Your task to perform on an android device: turn off smart reply in the gmail app Image 0: 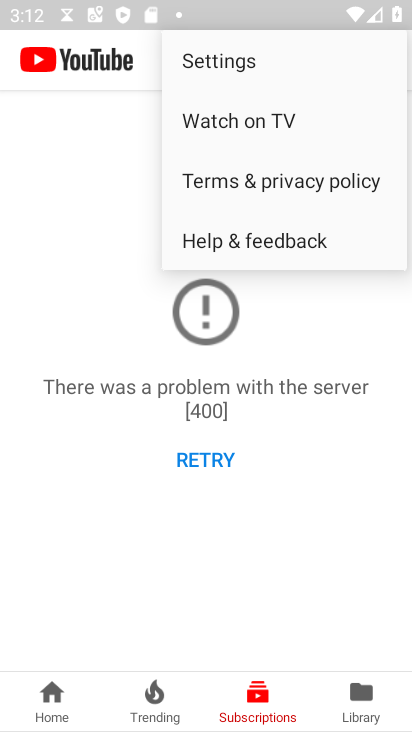
Step 0: press home button
Your task to perform on an android device: turn off smart reply in the gmail app Image 1: 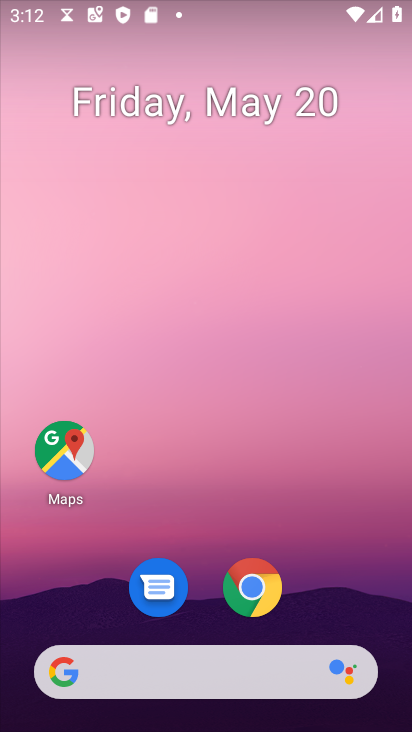
Step 1: drag from (360, 622) to (245, 166)
Your task to perform on an android device: turn off smart reply in the gmail app Image 2: 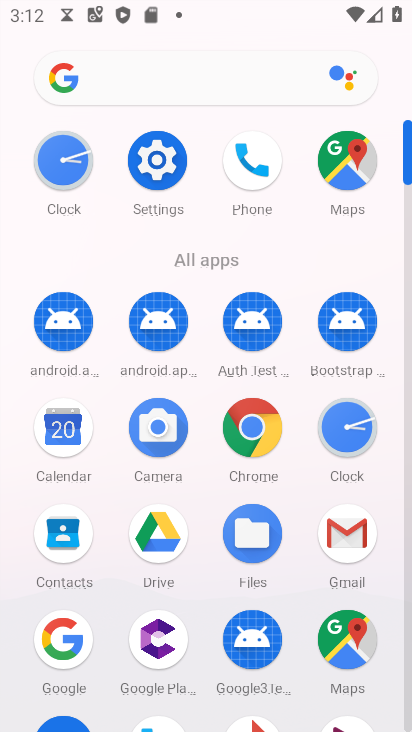
Step 2: click (336, 518)
Your task to perform on an android device: turn off smart reply in the gmail app Image 3: 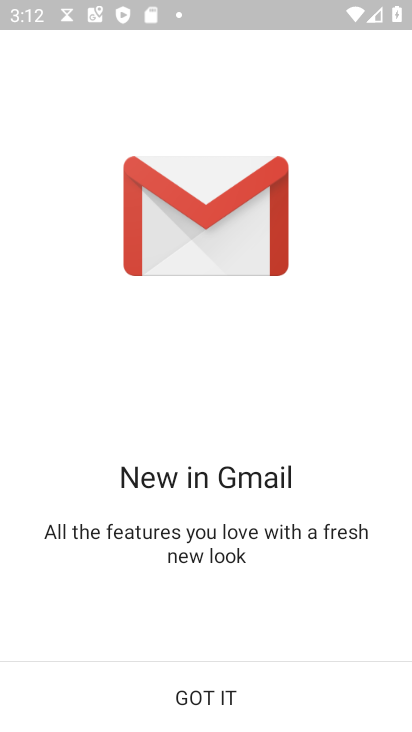
Step 3: click (285, 695)
Your task to perform on an android device: turn off smart reply in the gmail app Image 4: 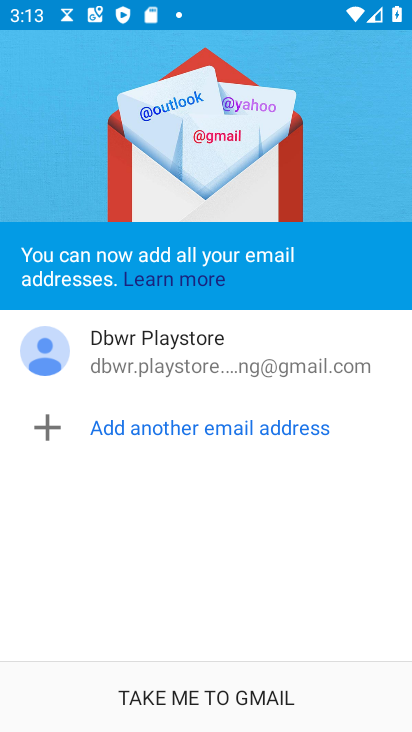
Step 4: click (285, 698)
Your task to perform on an android device: turn off smart reply in the gmail app Image 5: 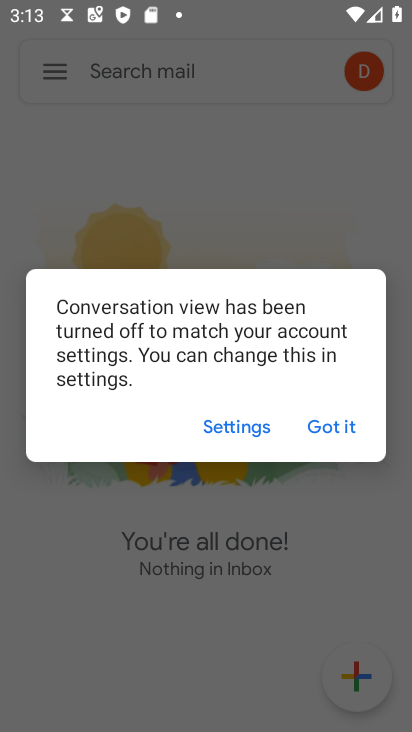
Step 5: click (322, 436)
Your task to perform on an android device: turn off smart reply in the gmail app Image 6: 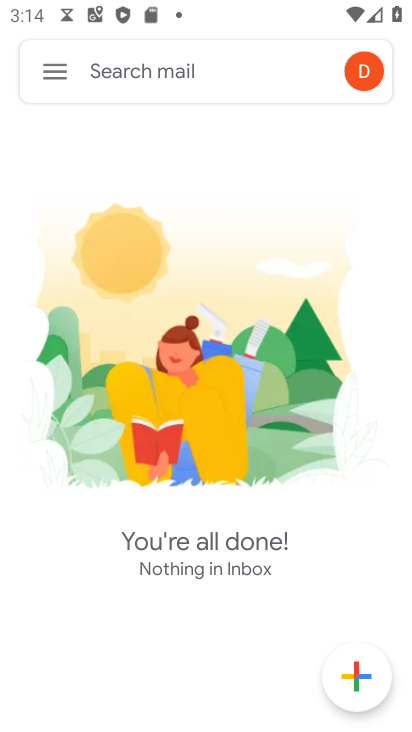
Step 6: click (69, 77)
Your task to perform on an android device: turn off smart reply in the gmail app Image 7: 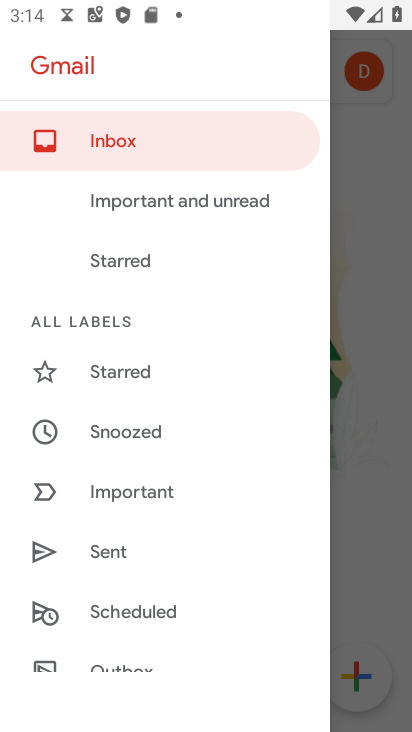
Step 7: drag from (153, 662) to (54, 188)
Your task to perform on an android device: turn off smart reply in the gmail app Image 8: 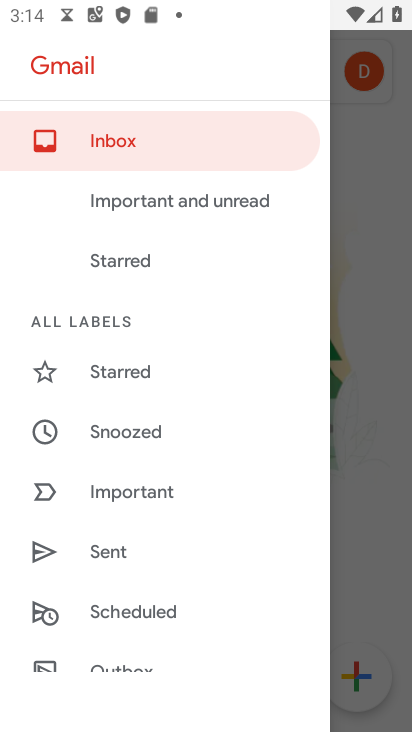
Step 8: drag from (144, 667) to (59, 183)
Your task to perform on an android device: turn off smart reply in the gmail app Image 9: 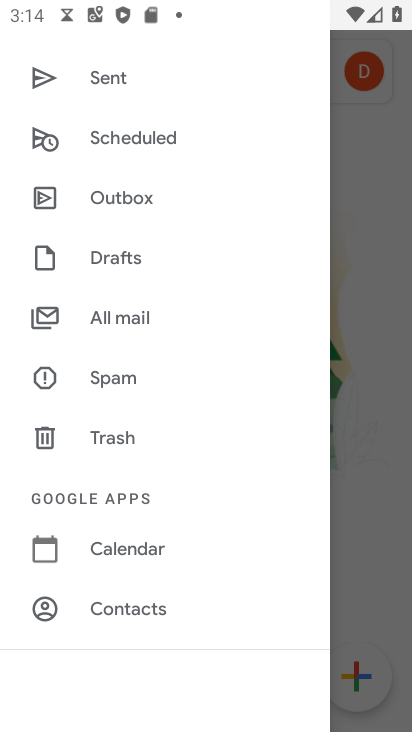
Step 9: drag from (148, 601) to (59, 221)
Your task to perform on an android device: turn off smart reply in the gmail app Image 10: 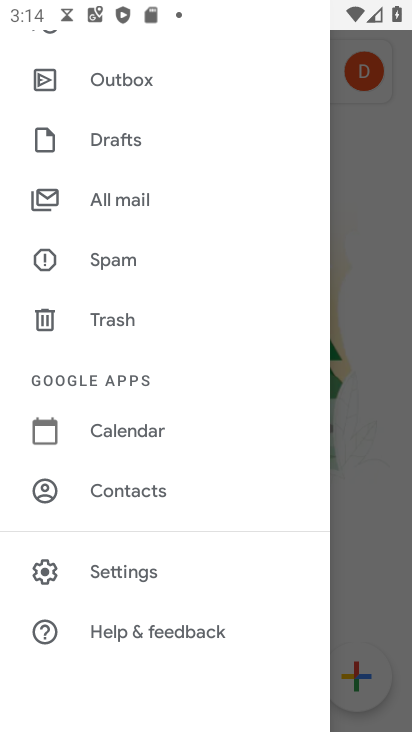
Step 10: click (152, 575)
Your task to perform on an android device: turn off smart reply in the gmail app Image 11: 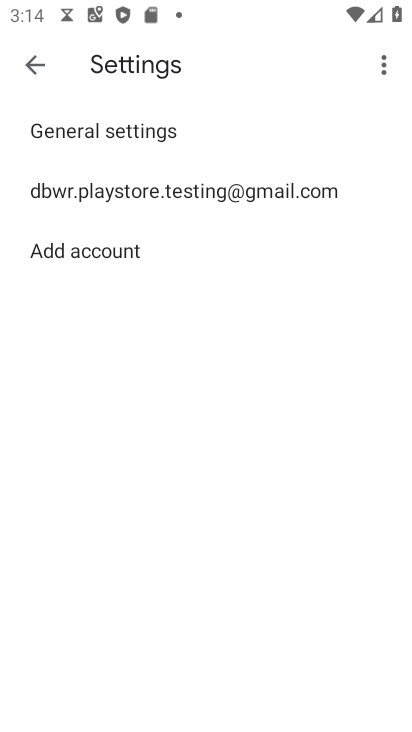
Step 11: click (191, 198)
Your task to perform on an android device: turn off smart reply in the gmail app Image 12: 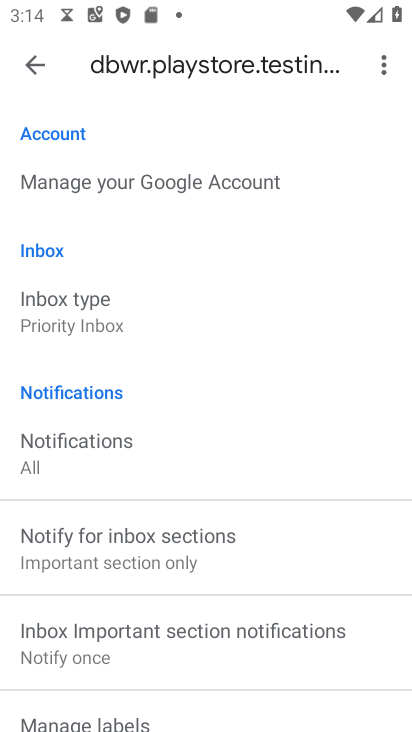
Step 12: drag from (261, 693) to (137, 226)
Your task to perform on an android device: turn off smart reply in the gmail app Image 13: 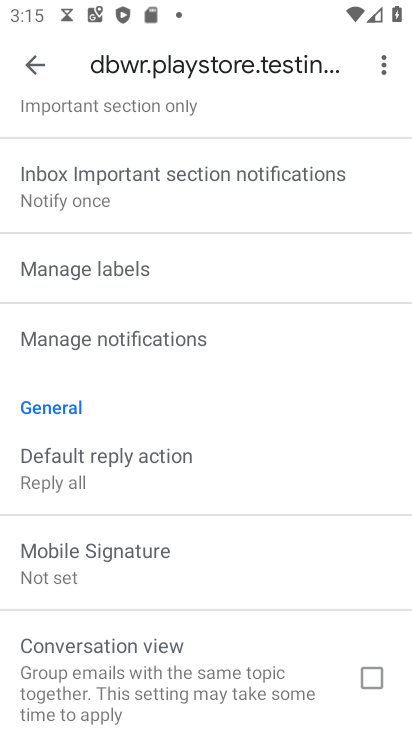
Step 13: drag from (230, 586) to (96, 93)
Your task to perform on an android device: turn off smart reply in the gmail app Image 14: 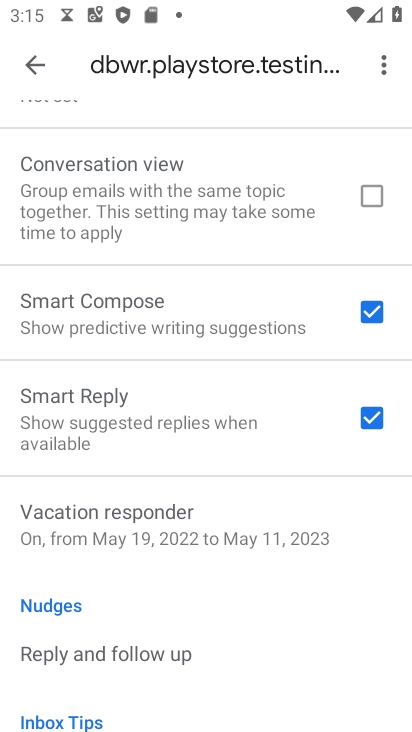
Step 14: drag from (228, 565) to (248, 464)
Your task to perform on an android device: turn off smart reply in the gmail app Image 15: 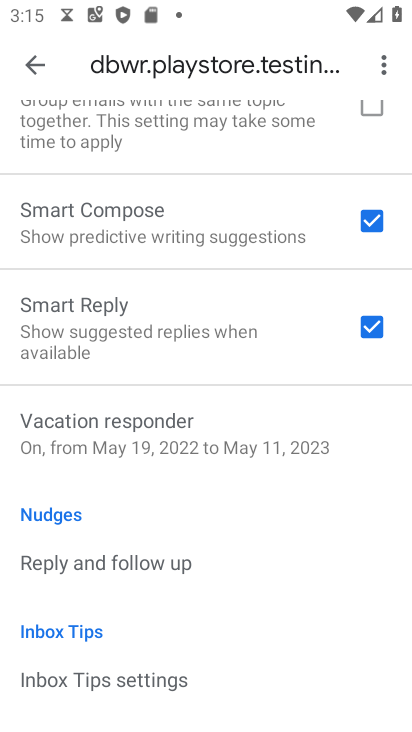
Step 15: click (363, 330)
Your task to perform on an android device: turn off smart reply in the gmail app Image 16: 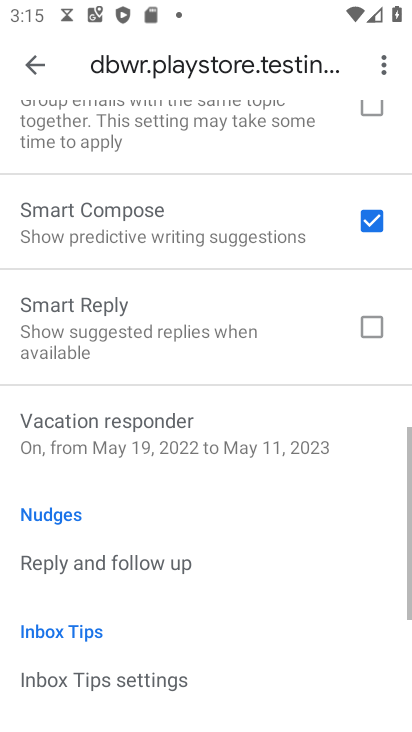
Step 16: task complete